Your task to perform on an android device: Is it going to rain tomorrow? Image 0: 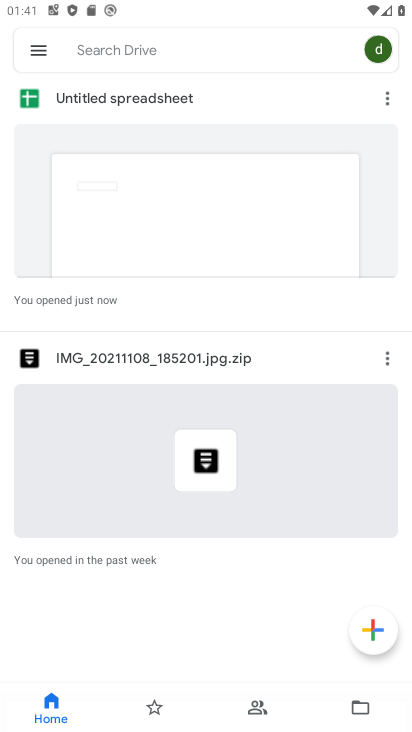
Step 0: press home button
Your task to perform on an android device: Is it going to rain tomorrow? Image 1: 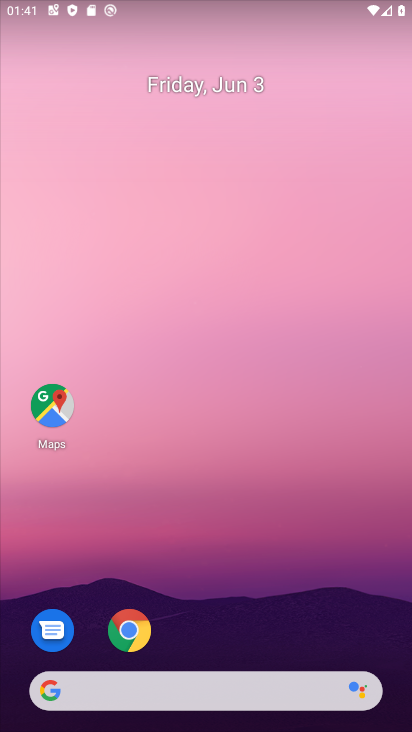
Step 1: click (208, 683)
Your task to perform on an android device: Is it going to rain tomorrow? Image 2: 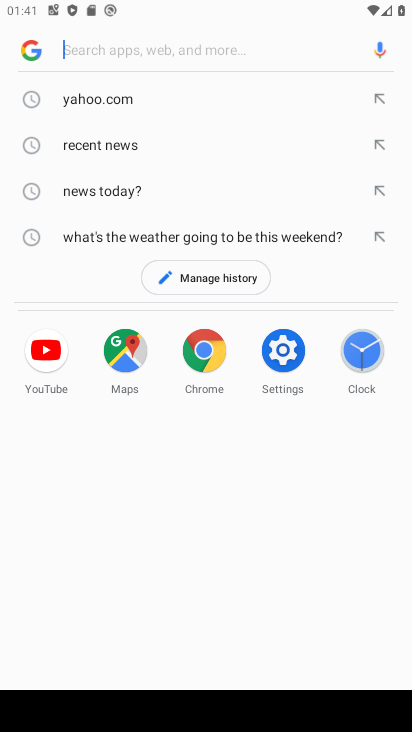
Step 2: type "Is it going to rain tomorrow?"
Your task to perform on an android device: Is it going to rain tomorrow? Image 3: 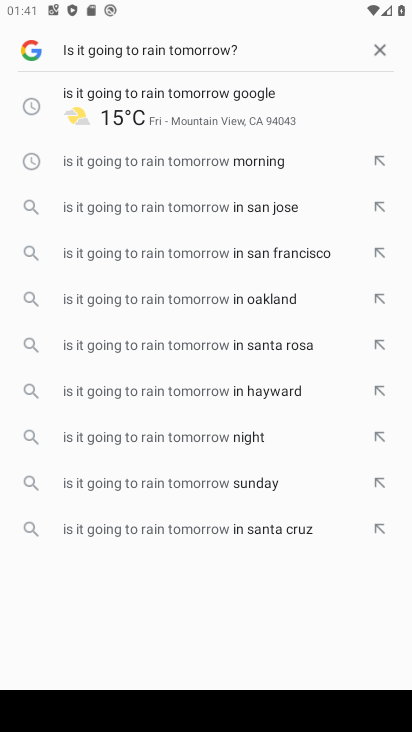
Step 3: click (259, 105)
Your task to perform on an android device: Is it going to rain tomorrow? Image 4: 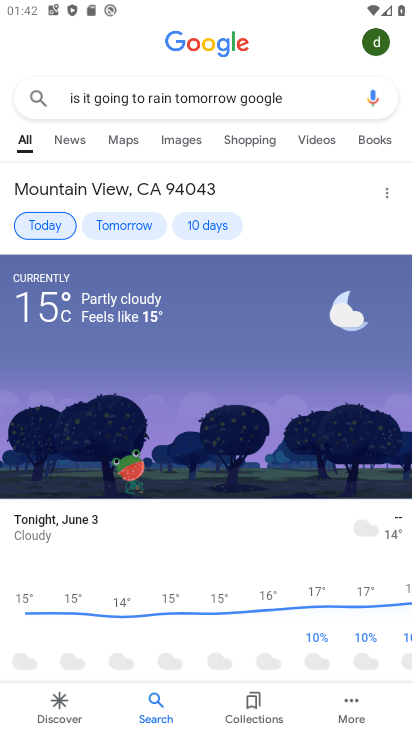
Step 4: task complete